Your task to perform on an android device: turn on the 12-hour format for clock Image 0: 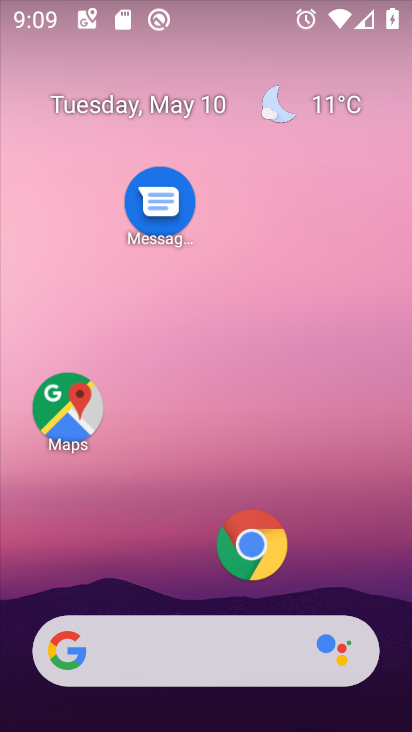
Step 0: drag from (199, 592) to (245, 70)
Your task to perform on an android device: turn on the 12-hour format for clock Image 1: 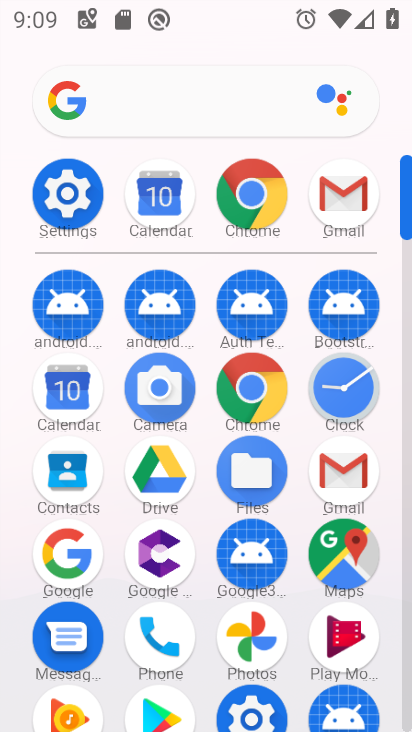
Step 1: click (337, 377)
Your task to perform on an android device: turn on the 12-hour format for clock Image 2: 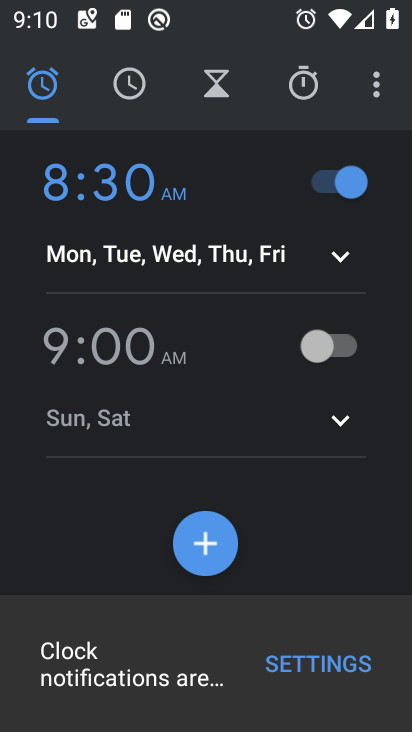
Step 2: click (376, 84)
Your task to perform on an android device: turn on the 12-hour format for clock Image 3: 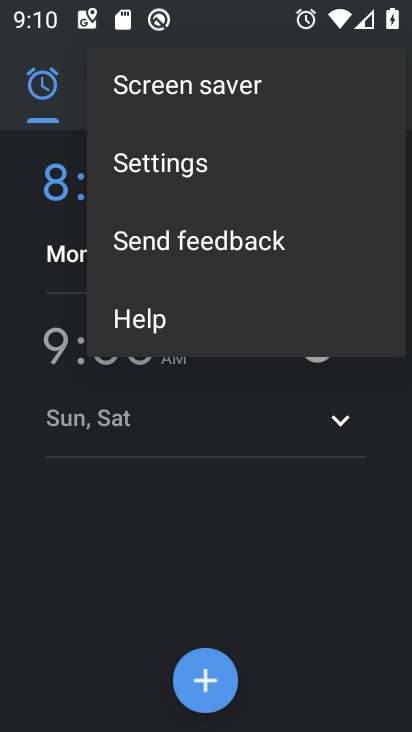
Step 3: click (213, 161)
Your task to perform on an android device: turn on the 12-hour format for clock Image 4: 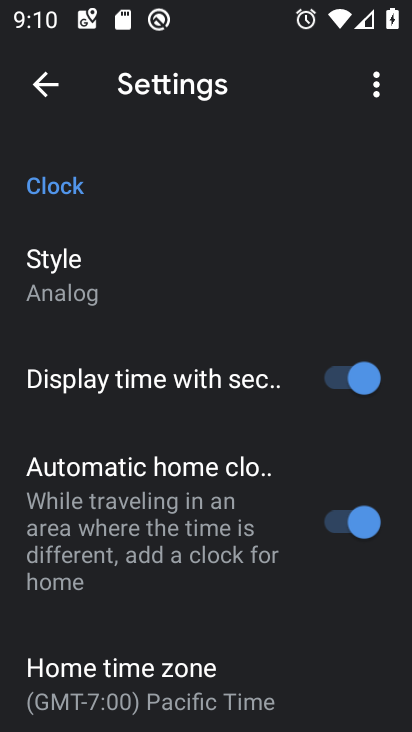
Step 4: drag from (253, 627) to (247, 240)
Your task to perform on an android device: turn on the 12-hour format for clock Image 5: 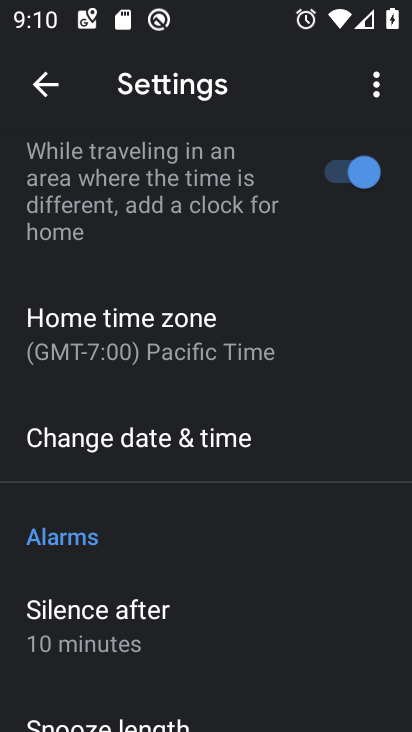
Step 5: click (236, 434)
Your task to perform on an android device: turn on the 12-hour format for clock Image 6: 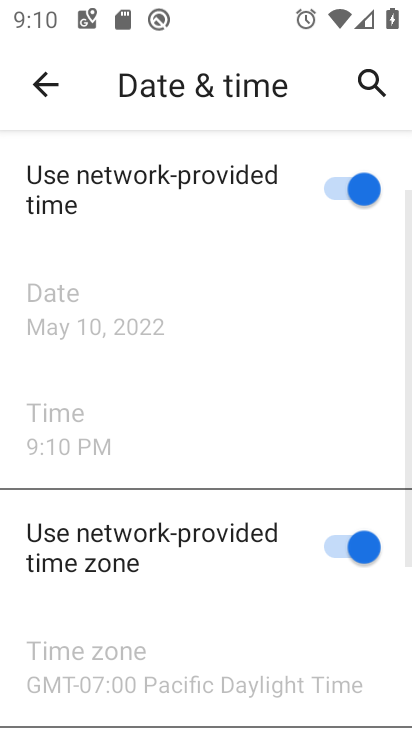
Step 6: task complete